Your task to perform on an android device: change text size in settings app Image 0: 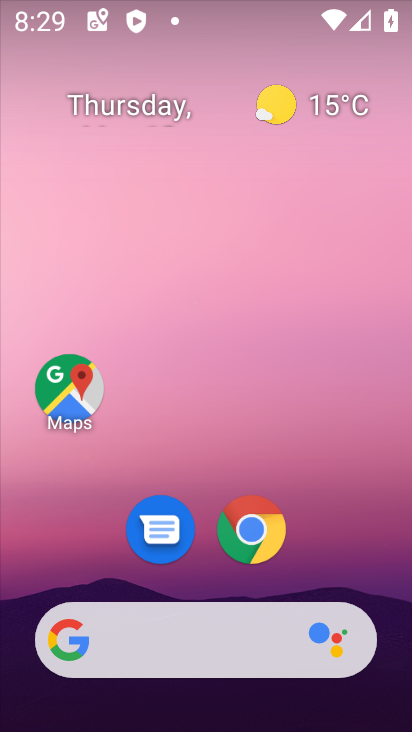
Step 0: drag from (244, 674) to (343, 96)
Your task to perform on an android device: change text size in settings app Image 1: 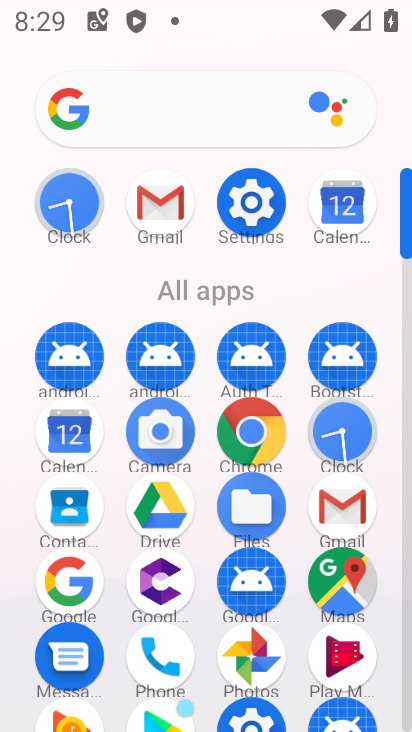
Step 1: click (242, 216)
Your task to perform on an android device: change text size in settings app Image 2: 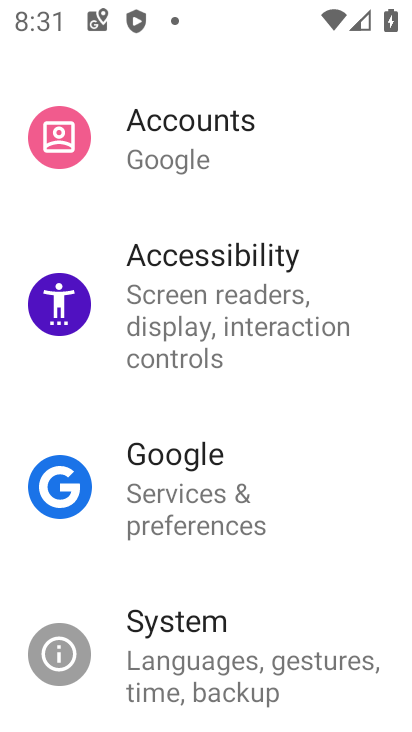
Step 2: drag from (237, 456) to (261, 610)
Your task to perform on an android device: change text size in settings app Image 3: 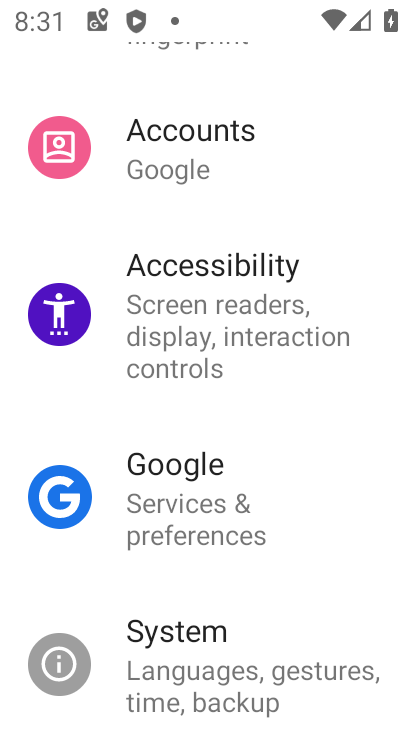
Step 3: drag from (218, 200) to (272, 569)
Your task to perform on an android device: change text size in settings app Image 4: 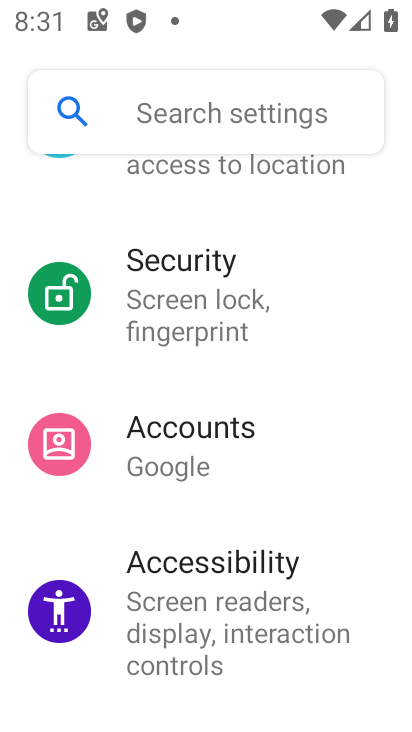
Step 4: drag from (262, 253) to (327, 704)
Your task to perform on an android device: change text size in settings app Image 5: 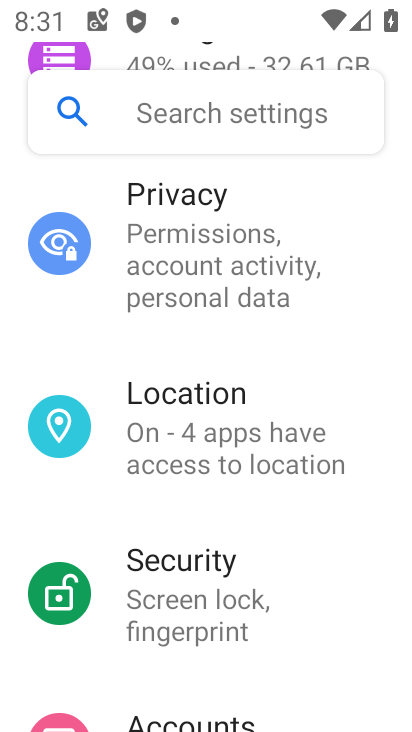
Step 5: drag from (335, 329) to (305, 716)
Your task to perform on an android device: change text size in settings app Image 6: 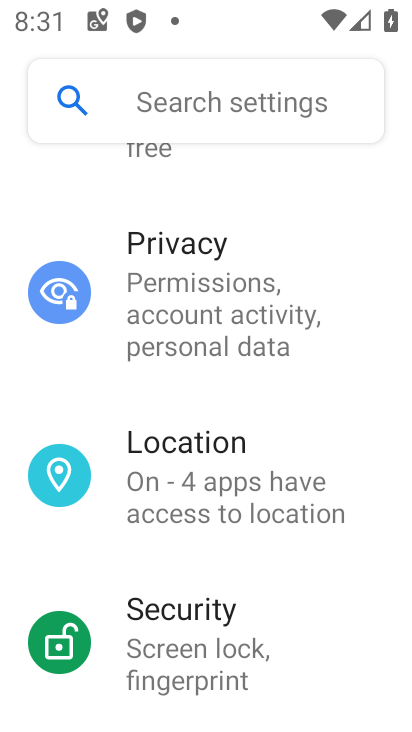
Step 6: drag from (282, 271) to (237, 689)
Your task to perform on an android device: change text size in settings app Image 7: 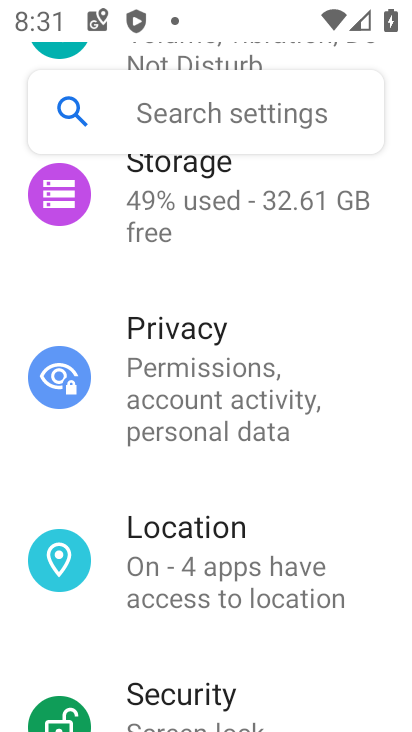
Step 7: drag from (223, 246) to (180, 706)
Your task to perform on an android device: change text size in settings app Image 8: 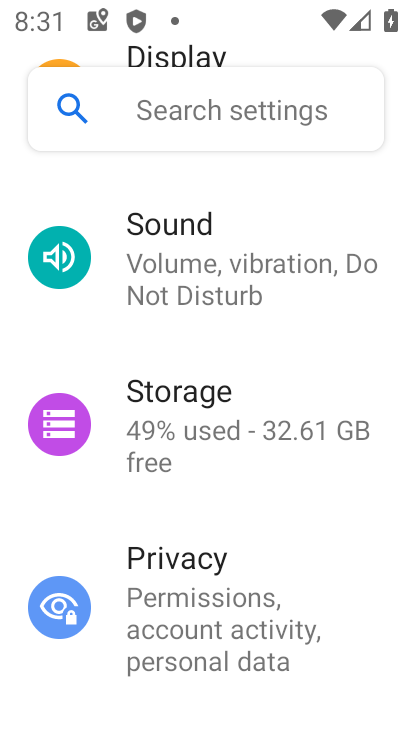
Step 8: drag from (284, 217) to (244, 712)
Your task to perform on an android device: change text size in settings app Image 9: 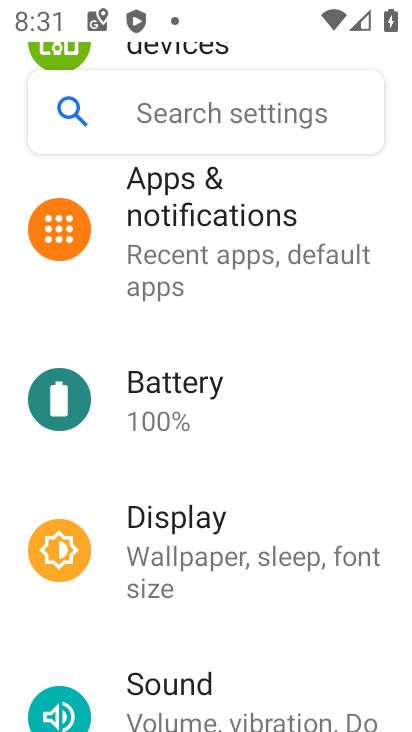
Step 9: drag from (203, 547) to (189, 34)
Your task to perform on an android device: change text size in settings app Image 10: 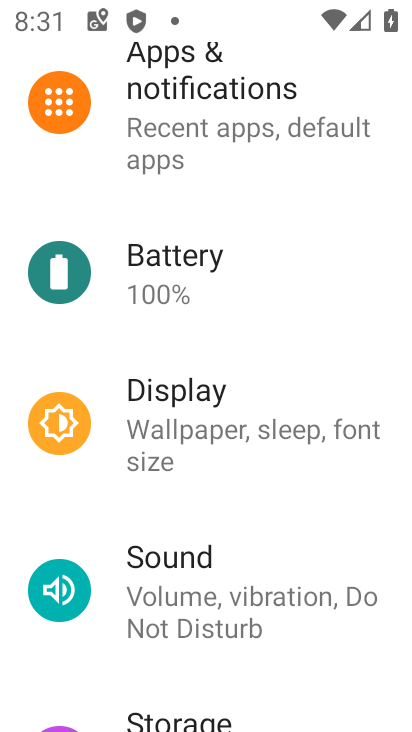
Step 10: drag from (218, 684) to (238, 77)
Your task to perform on an android device: change text size in settings app Image 11: 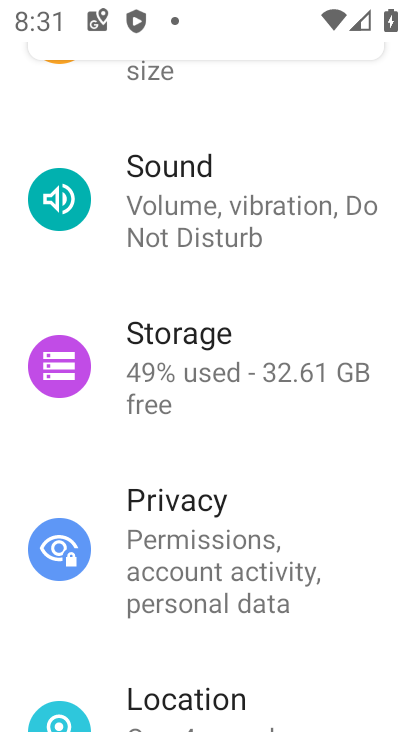
Step 11: drag from (293, 140) to (293, 409)
Your task to perform on an android device: change text size in settings app Image 12: 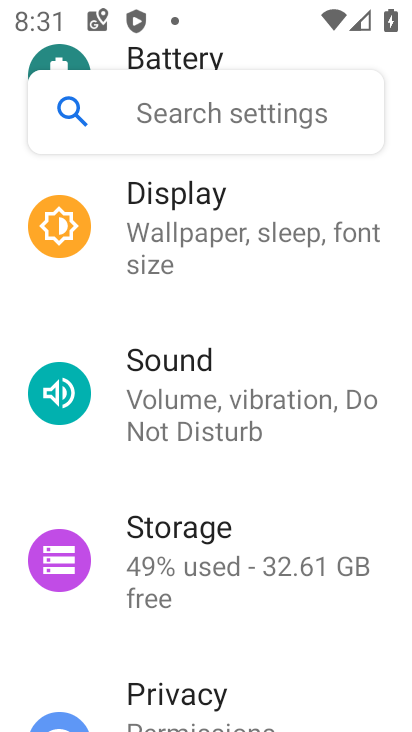
Step 12: click (193, 221)
Your task to perform on an android device: change text size in settings app Image 13: 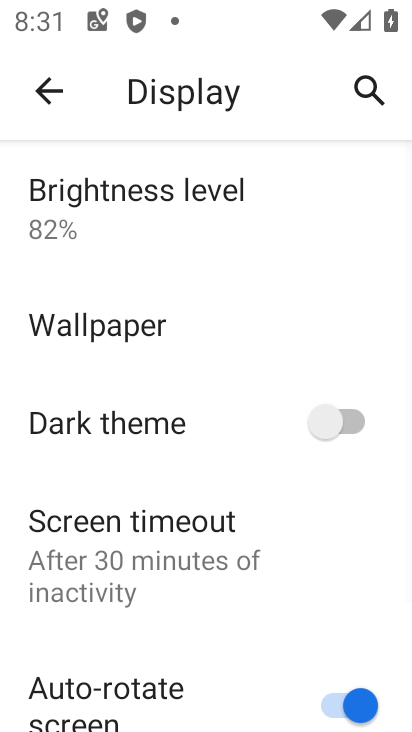
Step 13: drag from (245, 607) to (148, 33)
Your task to perform on an android device: change text size in settings app Image 14: 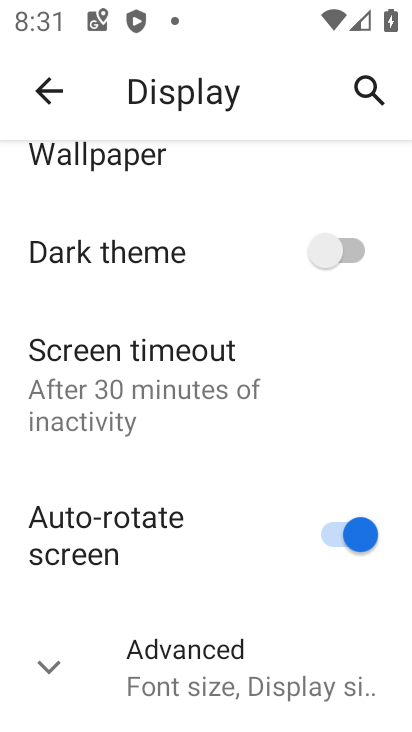
Step 14: click (160, 676)
Your task to perform on an android device: change text size in settings app Image 15: 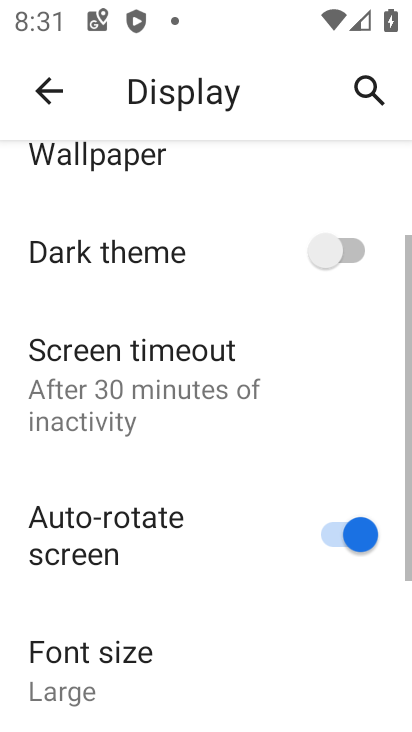
Step 15: click (119, 663)
Your task to perform on an android device: change text size in settings app Image 16: 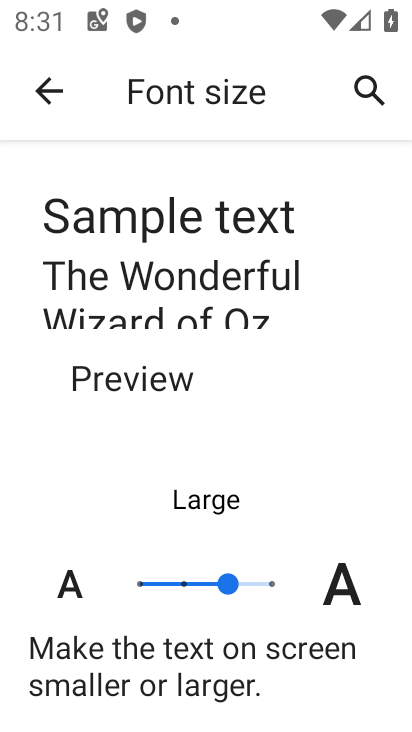
Step 16: click (140, 579)
Your task to perform on an android device: change text size in settings app Image 17: 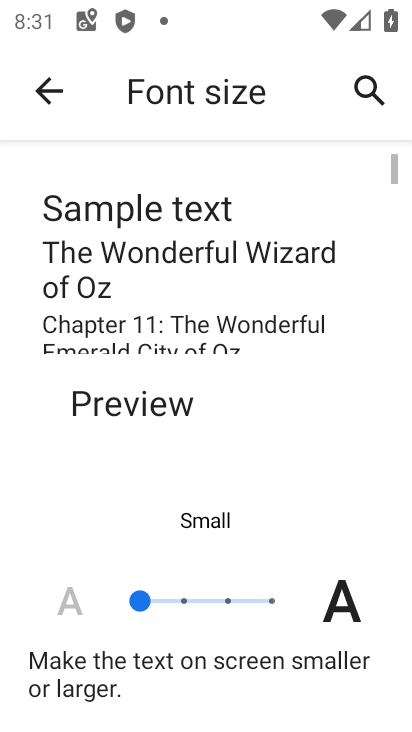
Step 17: task complete